Your task to perform on an android device: Show me recent news Image 0: 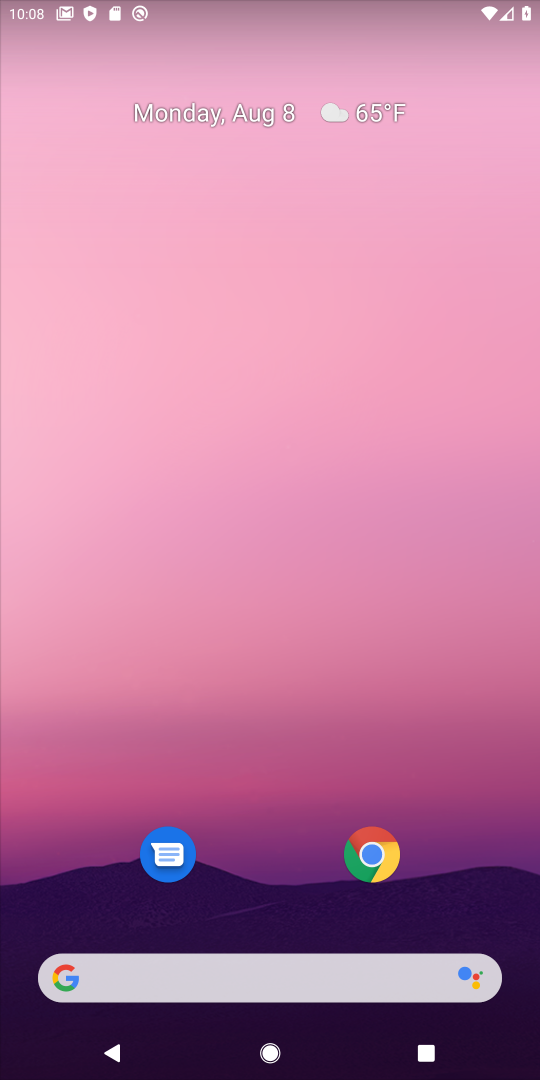
Step 0: drag from (267, 871) to (244, 43)
Your task to perform on an android device: Show me recent news Image 1: 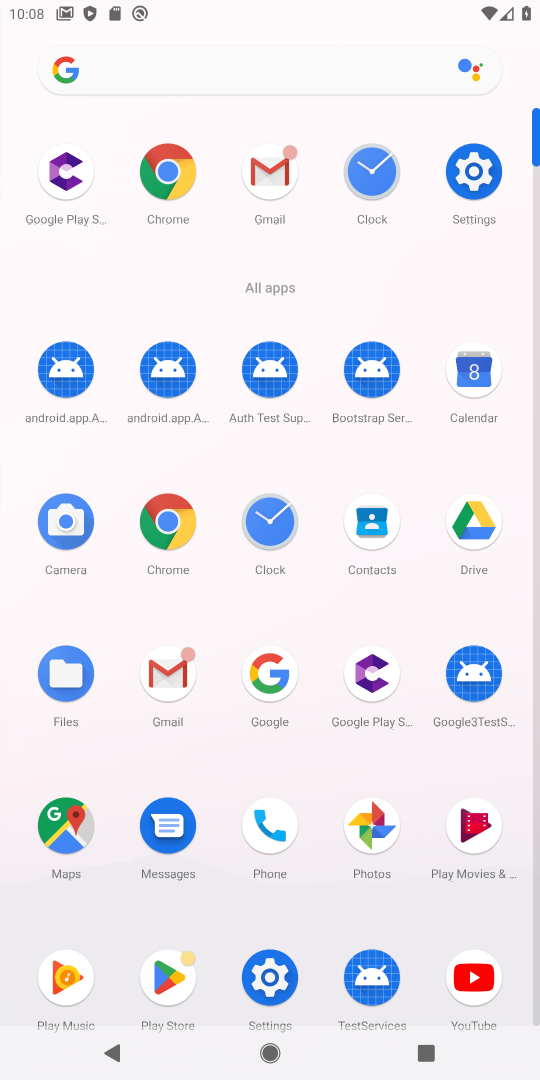
Step 1: click (178, 504)
Your task to perform on an android device: Show me recent news Image 2: 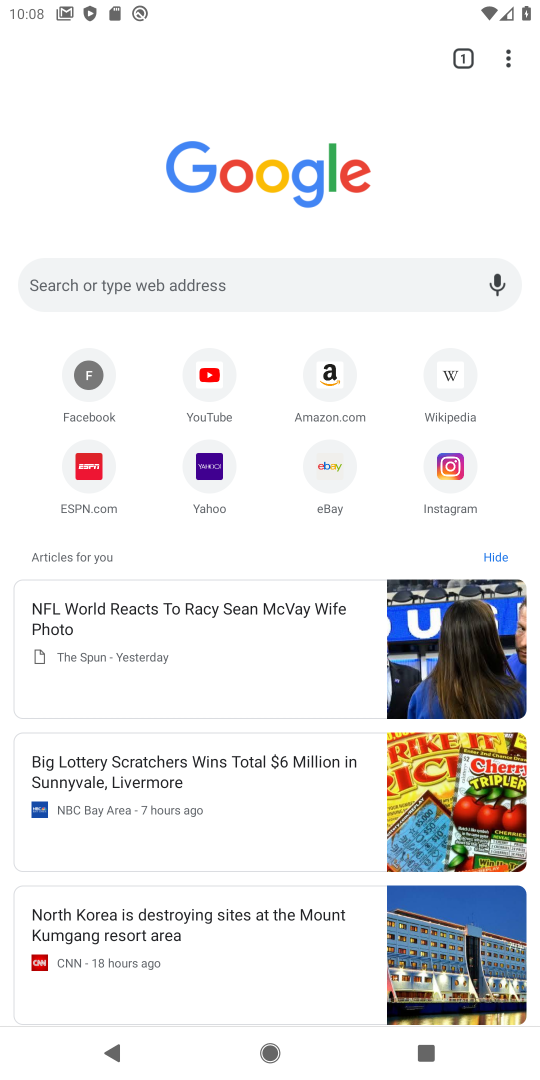
Step 2: task complete